Your task to perform on an android device: Open sound settings Image 0: 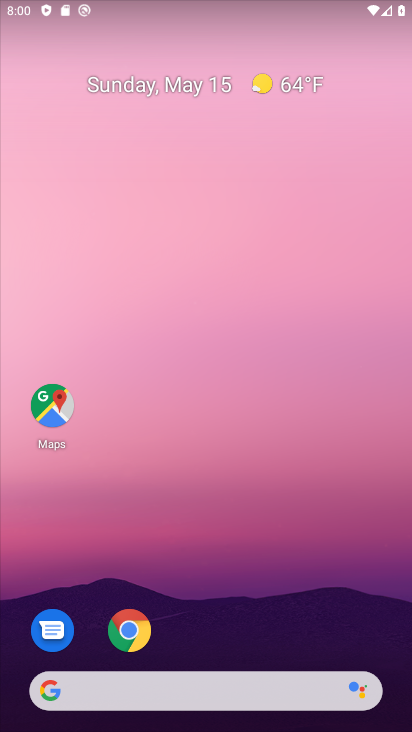
Step 0: drag from (289, 432) to (35, 272)
Your task to perform on an android device: Open sound settings Image 1: 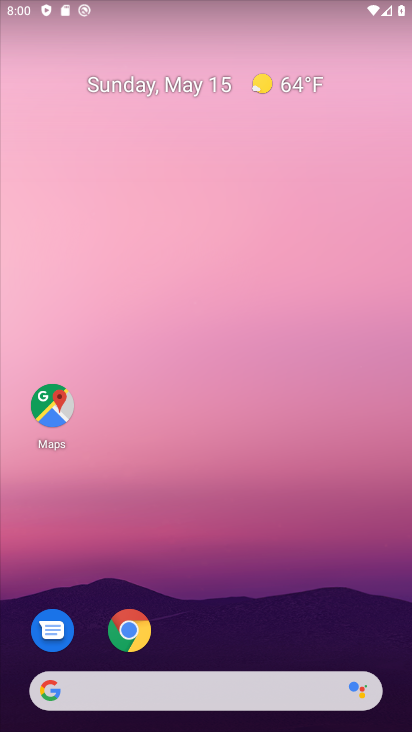
Step 1: drag from (380, 412) to (383, 143)
Your task to perform on an android device: Open sound settings Image 2: 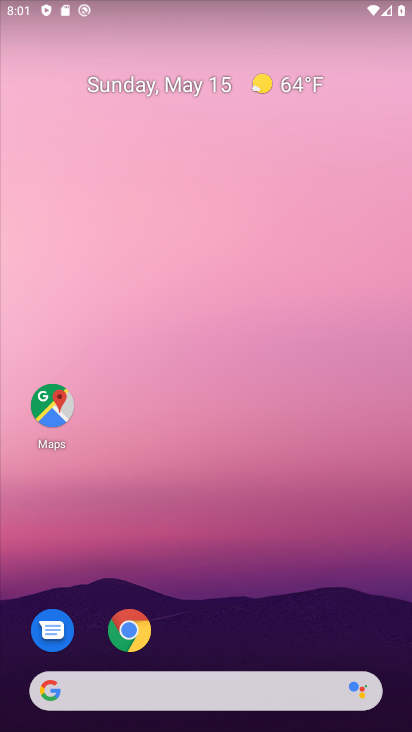
Step 2: drag from (354, 516) to (265, 4)
Your task to perform on an android device: Open sound settings Image 3: 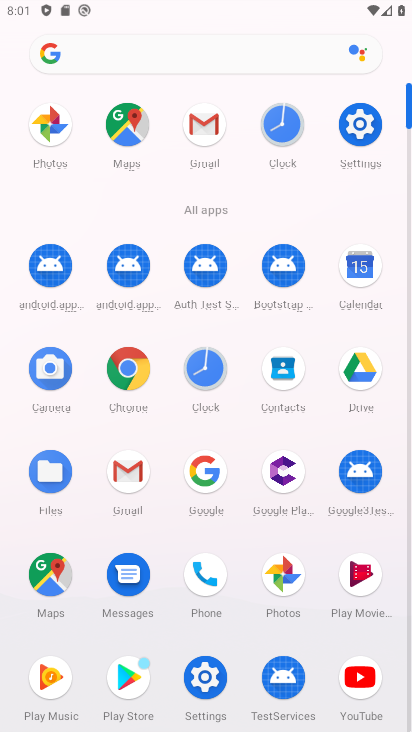
Step 3: click (359, 131)
Your task to perform on an android device: Open sound settings Image 4: 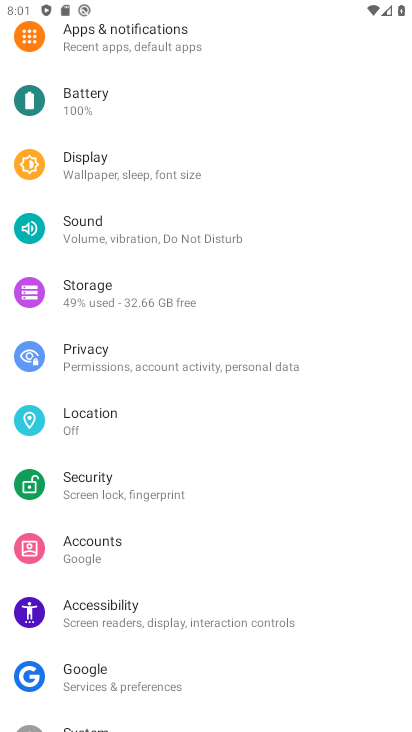
Step 4: click (113, 253)
Your task to perform on an android device: Open sound settings Image 5: 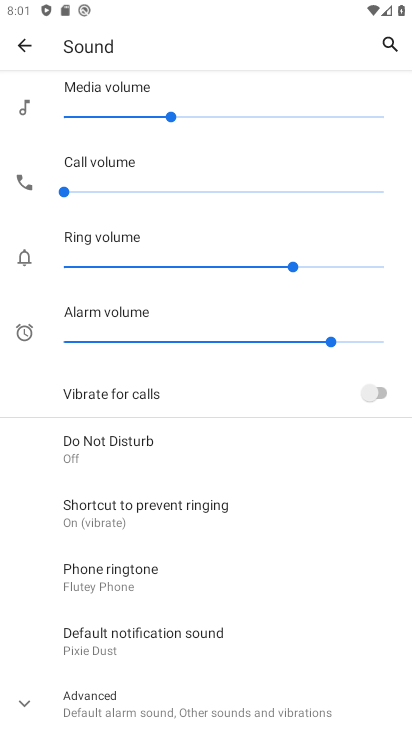
Step 5: task complete